Your task to perform on an android device: empty trash in google photos Image 0: 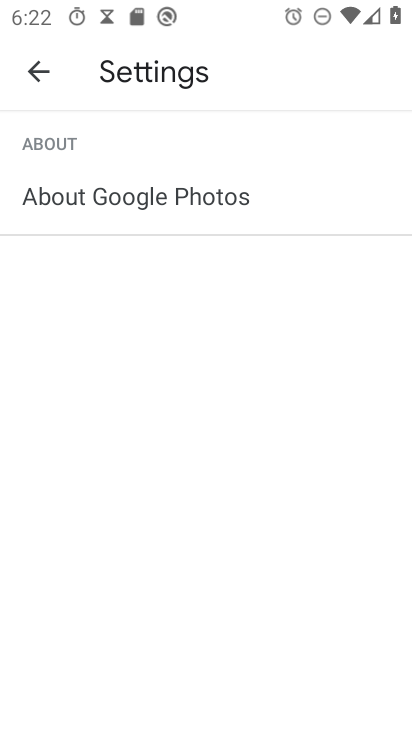
Step 0: drag from (231, 590) to (201, 375)
Your task to perform on an android device: empty trash in google photos Image 1: 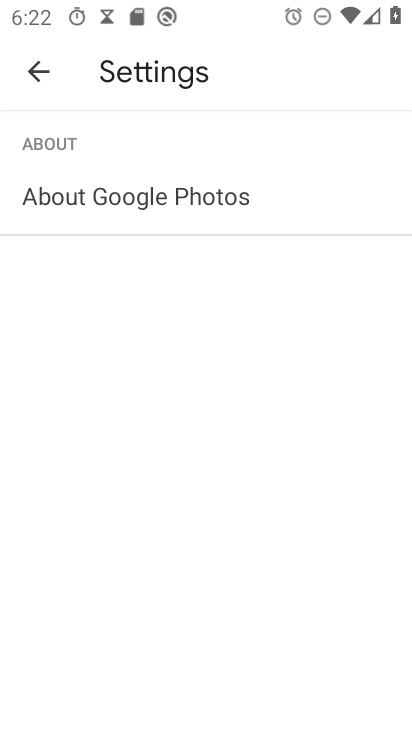
Step 1: press home button
Your task to perform on an android device: empty trash in google photos Image 2: 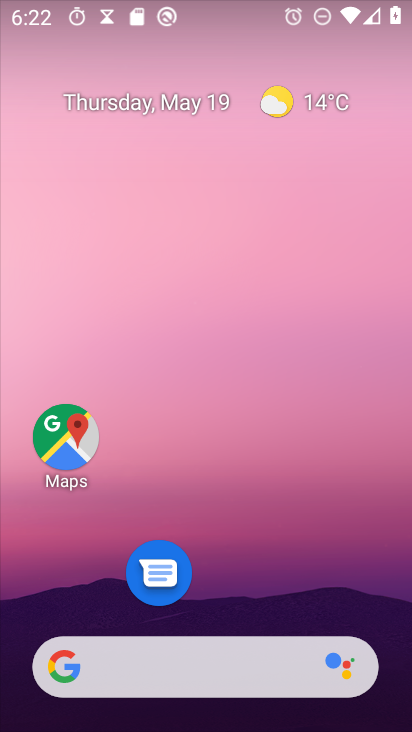
Step 2: drag from (214, 622) to (198, 160)
Your task to perform on an android device: empty trash in google photos Image 3: 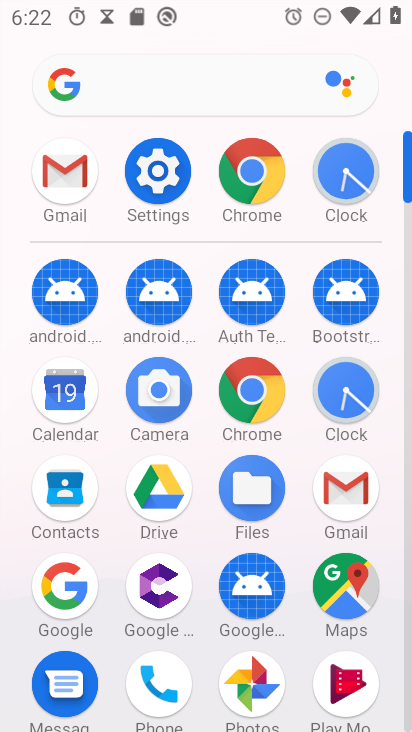
Step 3: click (235, 682)
Your task to perform on an android device: empty trash in google photos Image 4: 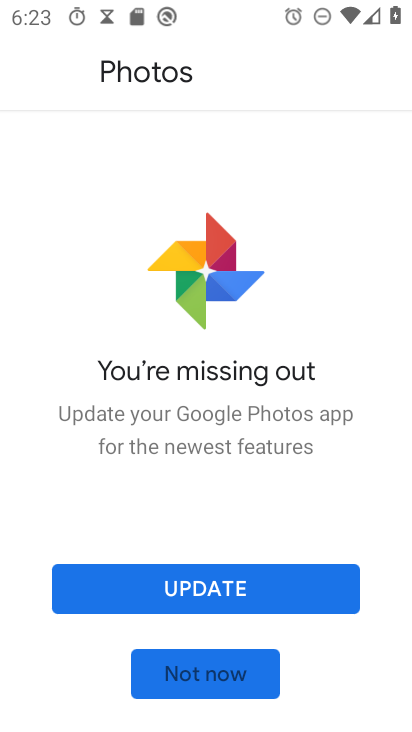
Step 4: click (150, 669)
Your task to perform on an android device: empty trash in google photos Image 5: 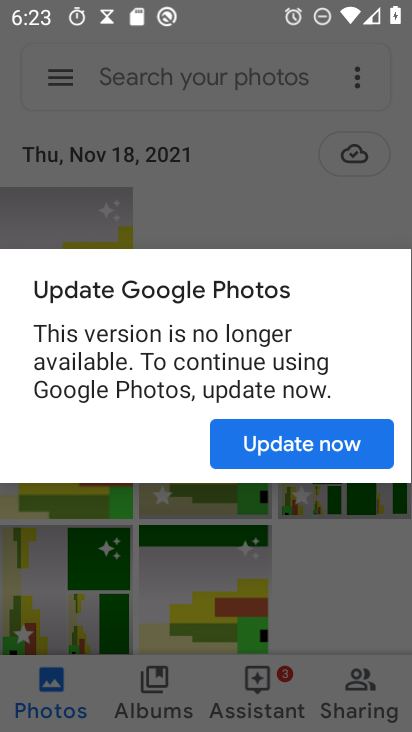
Step 5: click (287, 462)
Your task to perform on an android device: empty trash in google photos Image 6: 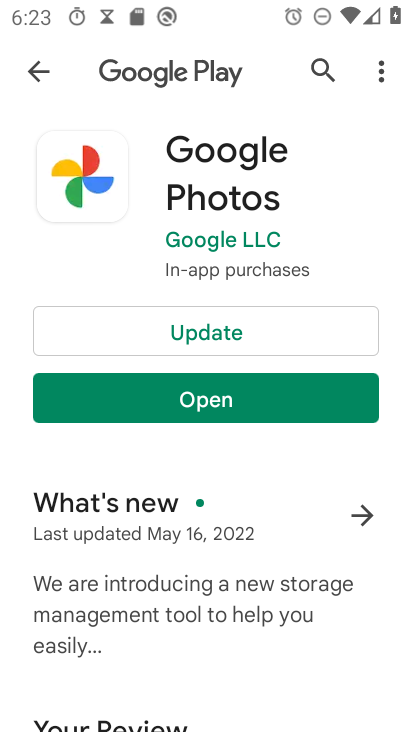
Step 6: click (208, 397)
Your task to perform on an android device: empty trash in google photos Image 7: 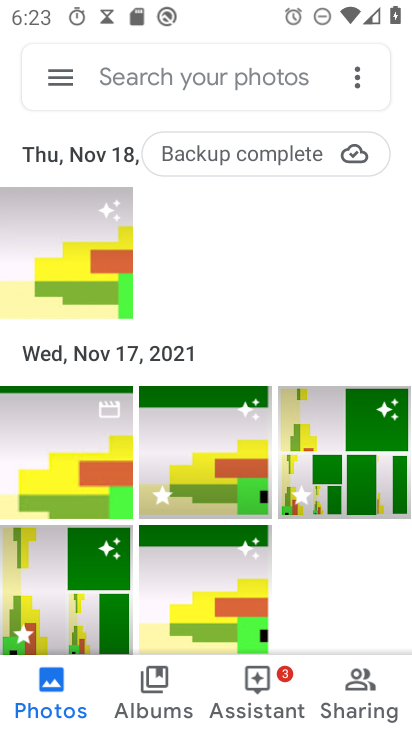
Step 7: click (60, 79)
Your task to perform on an android device: empty trash in google photos Image 8: 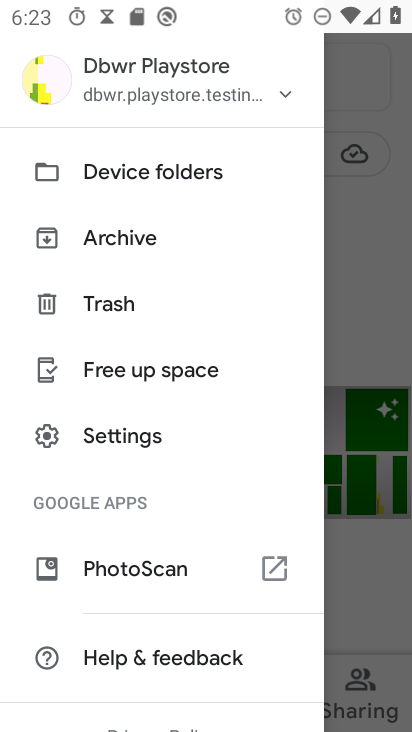
Step 8: click (96, 305)
Your task to perform on an android device: empty trash in google photos Image 9: 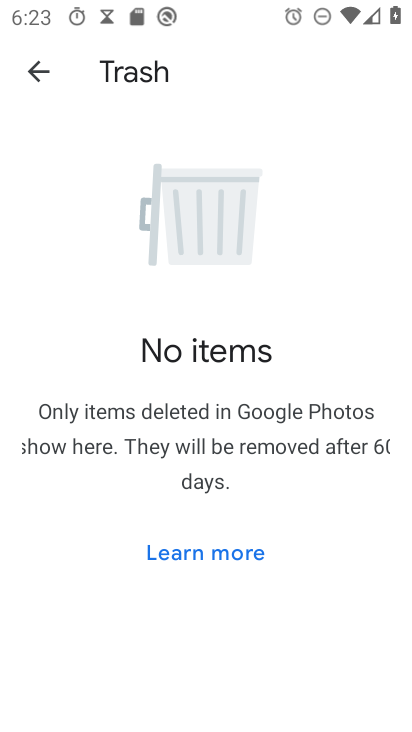
Step 9: task complete